Your task to perform on an android device: delete the emails in spam in the gmail app Image 0: 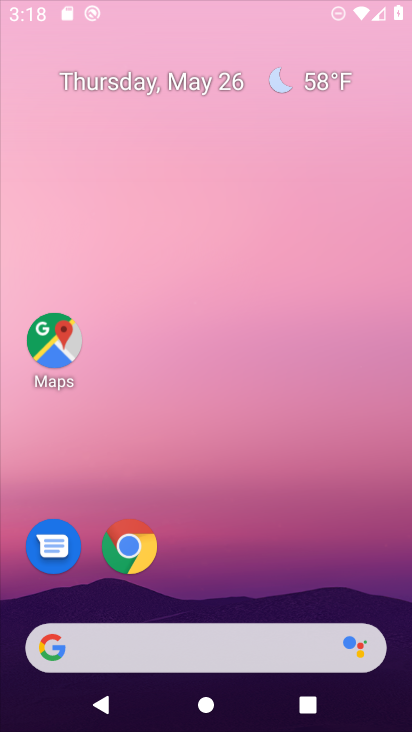
Step 0: press home button
Your task to perform on an android device: delete the emails in spam in the gmail app Image 1: 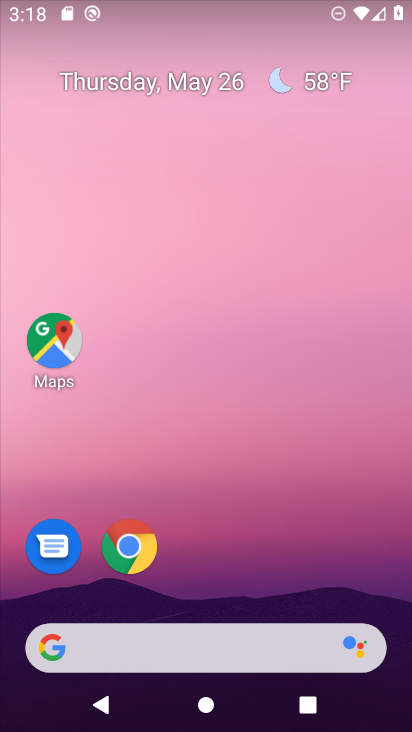
Step 1: drag from (219, 602) to (255, 19)
Your task to perform on an android device: delete the emails in spam in the gmail app Image 2: 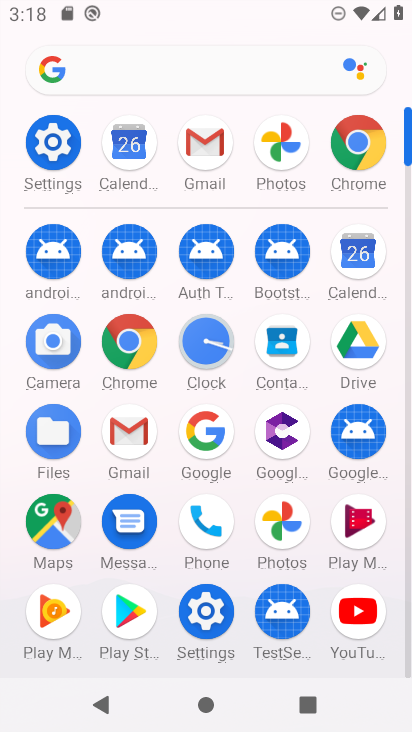
Step 2: click (200, 135)
Your task to perform on an android device: delete the emails in spam in the gmail app Image 3: 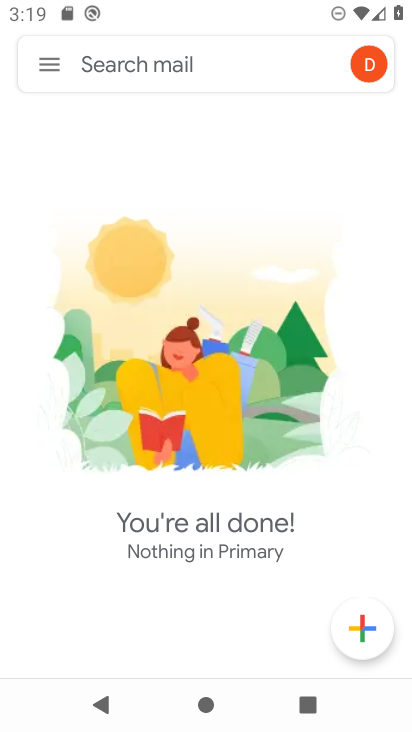
Step 3: click (46, 54)
Your task to perform on an android device: delete the emails in spam in the gmail app Image 4: 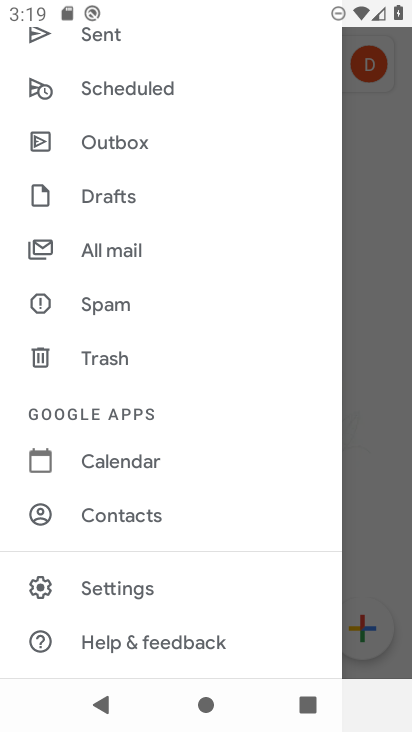
Step 4: click (137, 297)
Your task to perform on an android device: delete the emails in spam in the gmail app Image 5: 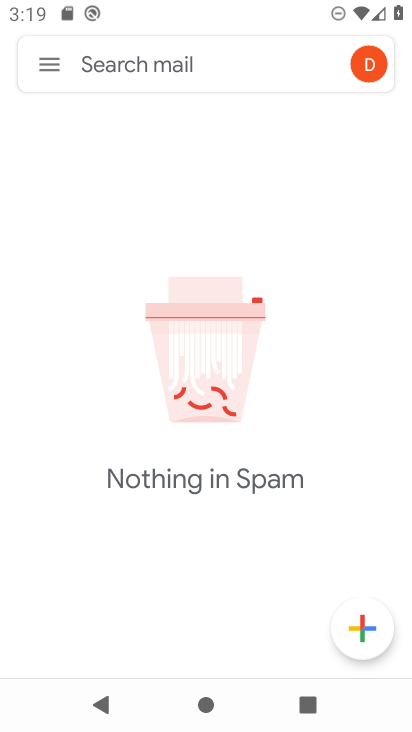
Step 5: task complete